Your task to perform on an android device: visit the assistant section in the google photos Image 0: 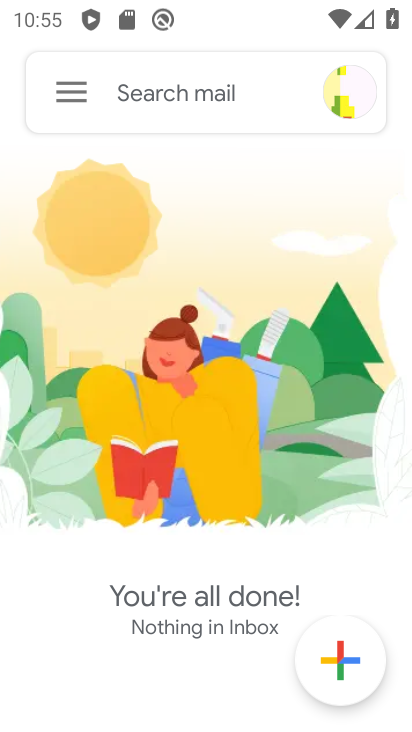
Step 0: press home button
Your task to perform on an android device: visit the assistant section in the google photos Image 1: 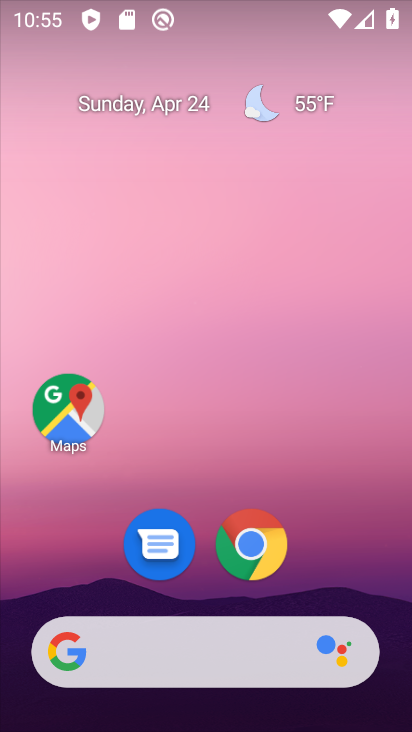
Step 1: drag from (344, 582) to (318, 84)
Your task to perform on an android device: visit the assistant section in the google photos Image 2: 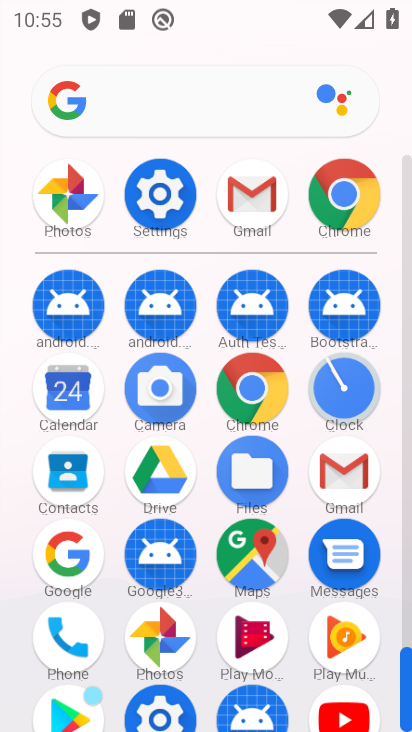
Step 2: click (165, 642)
Your task to perform on an android device: visit the assistant section in the google photos Image 3: 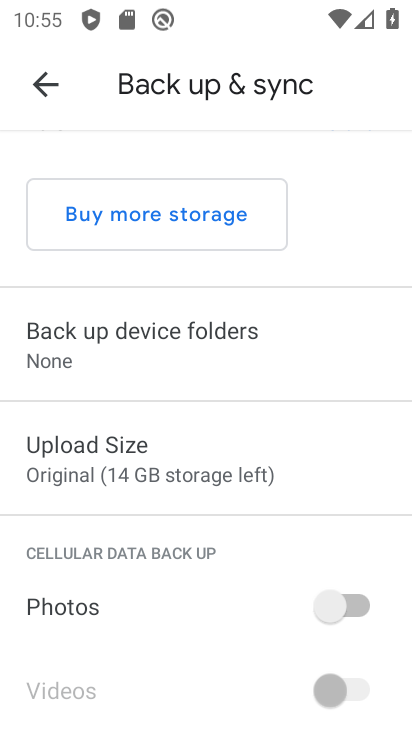
Step 3: click (45, 84)
Your task to perform on an android device: visit the assistant section in the google photos Image 4: 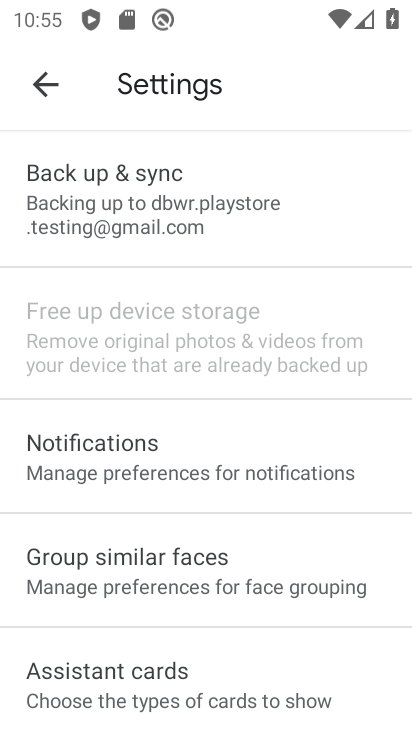
Step 4: click (45, 84)
Your task to perform on an android device: visit the assistant section in the google photos Image 5: 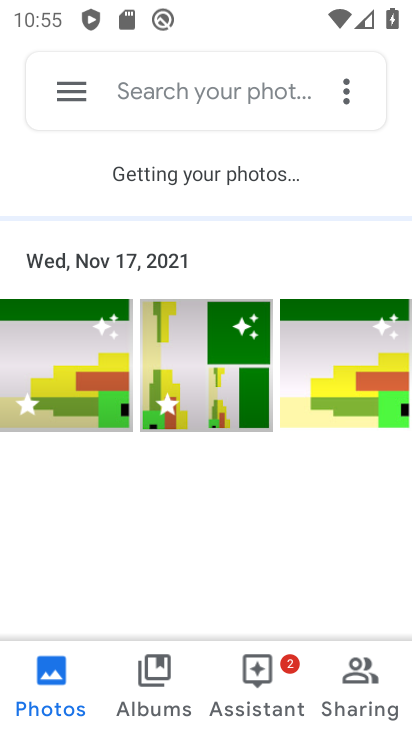
Step 5: click (264, 668)
Your task to perform on an android device: visit the assistant section in the google photos Image 6: 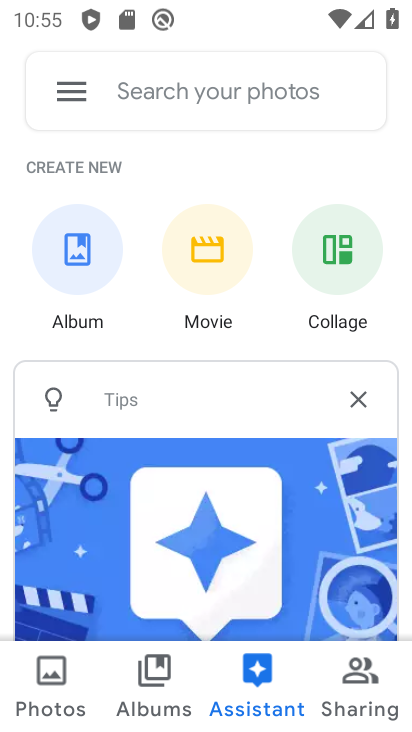
Step 6: task complete